Your task to perform on an android device: toggle improve location accuracy Image 0: 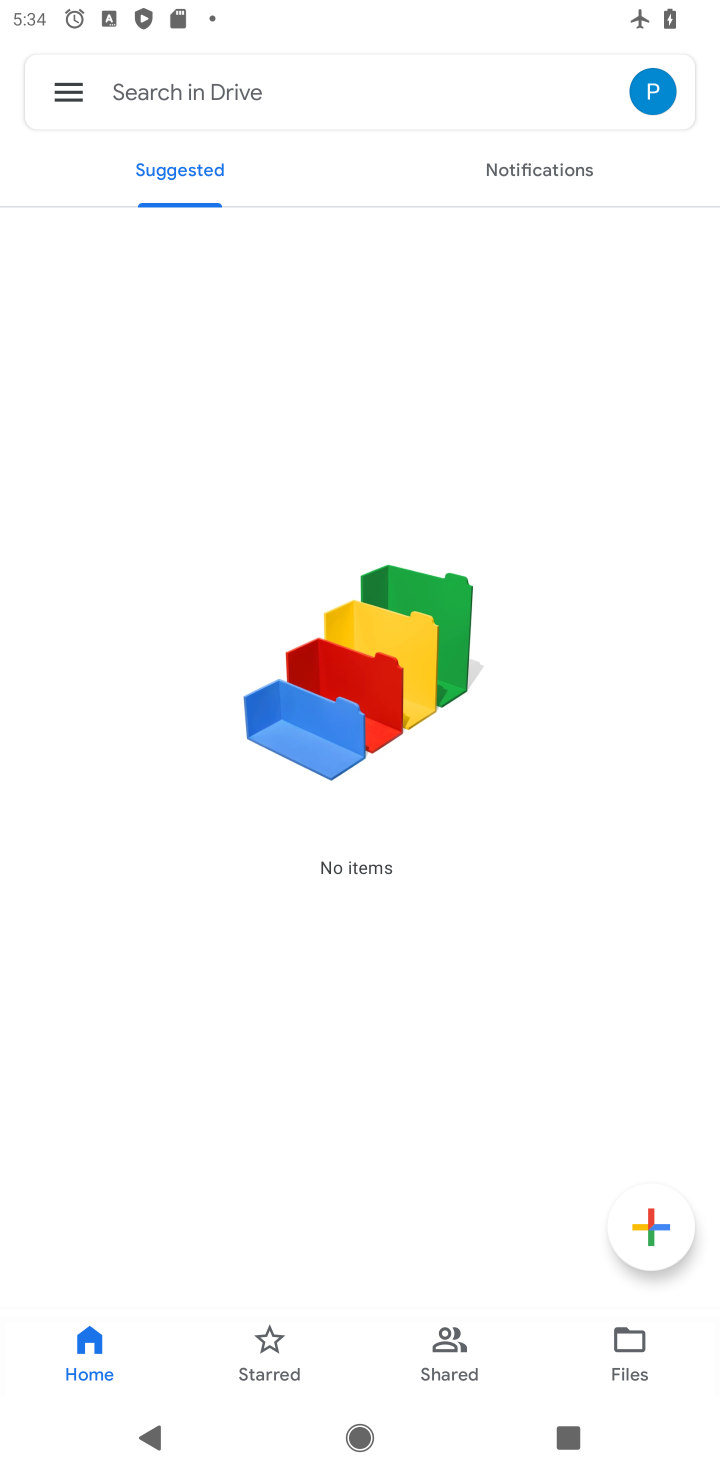
Step 0: press home button
Your task to perform on an android device: toggle improve location accuracy Image 1: 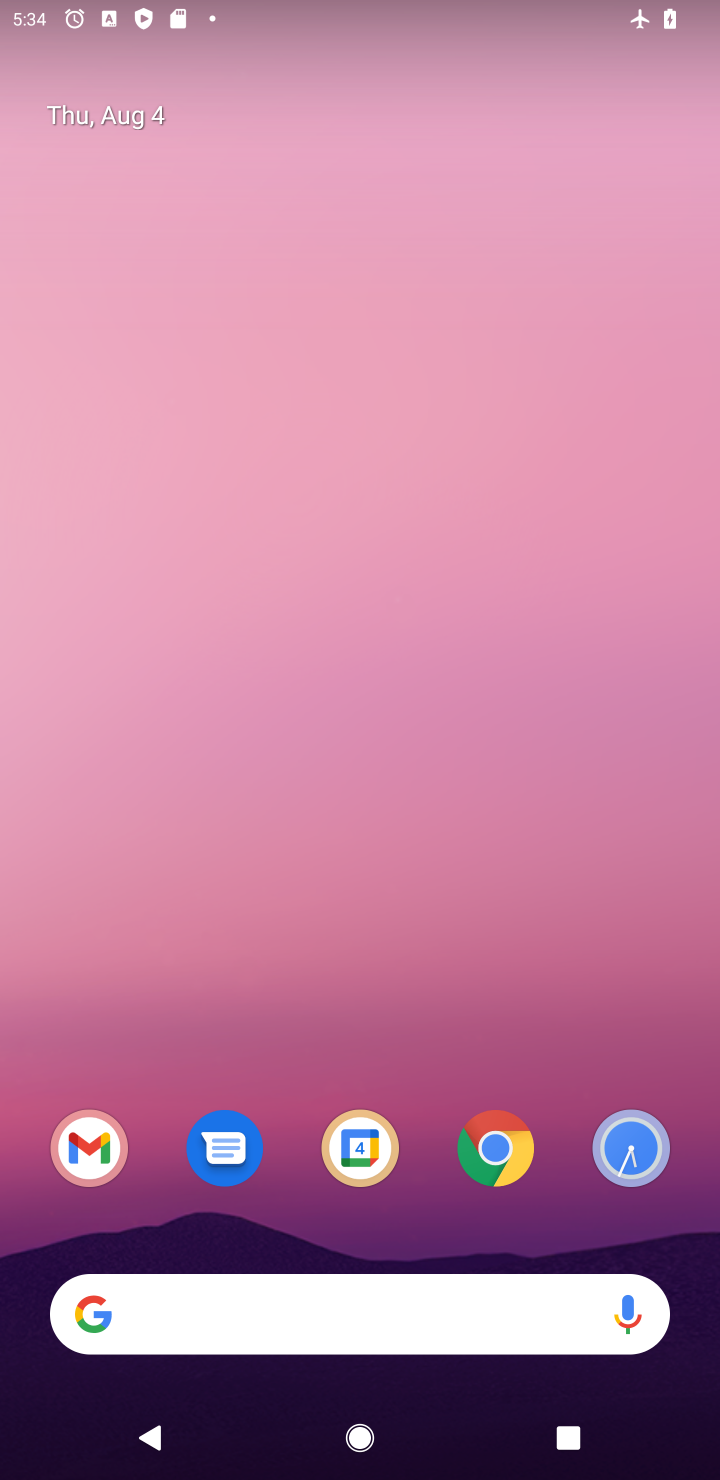
Step 1: drag from (550, 1187) to (489, 346)
Your task to perform on an android device: toggle improve location accuracy Image 2: 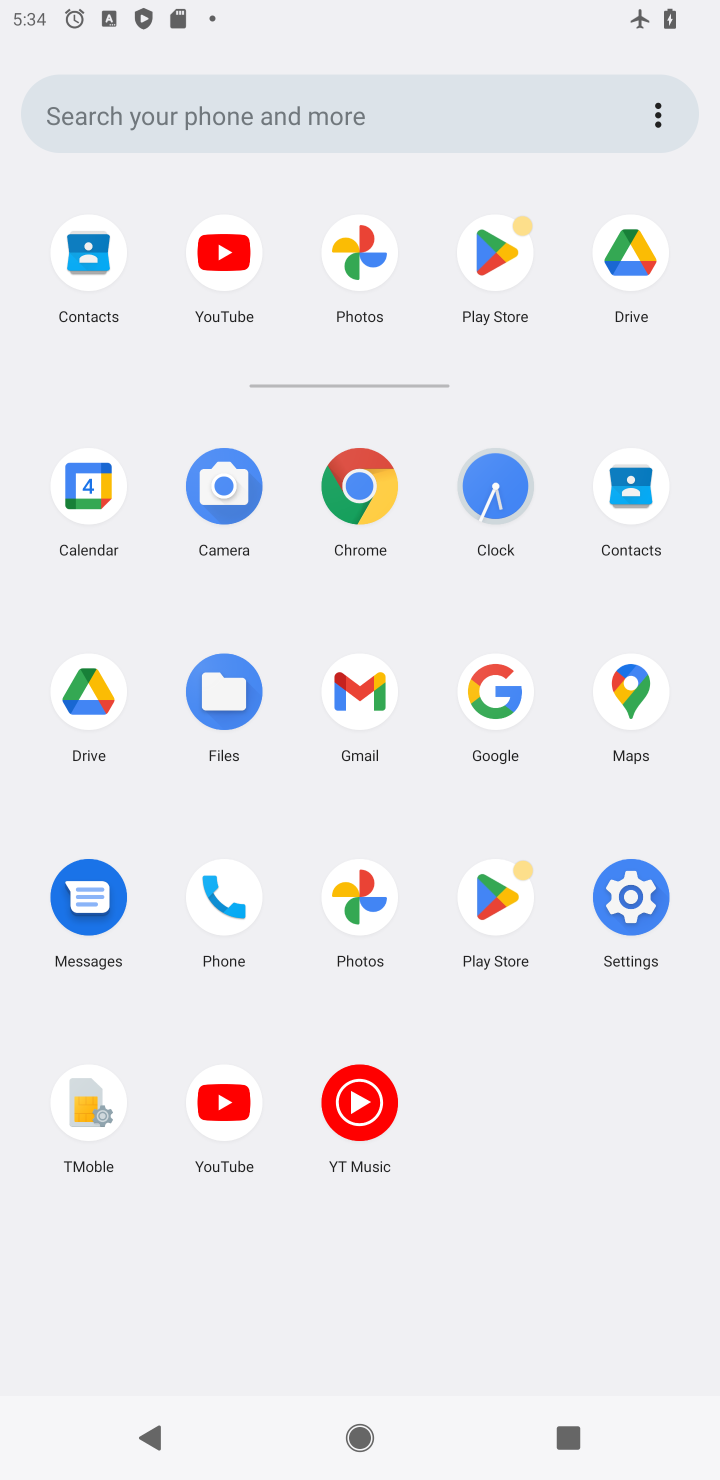
Step 2: click (627, 905)
Your task to perform on an android device: toggle improve location accuracy Image 3: 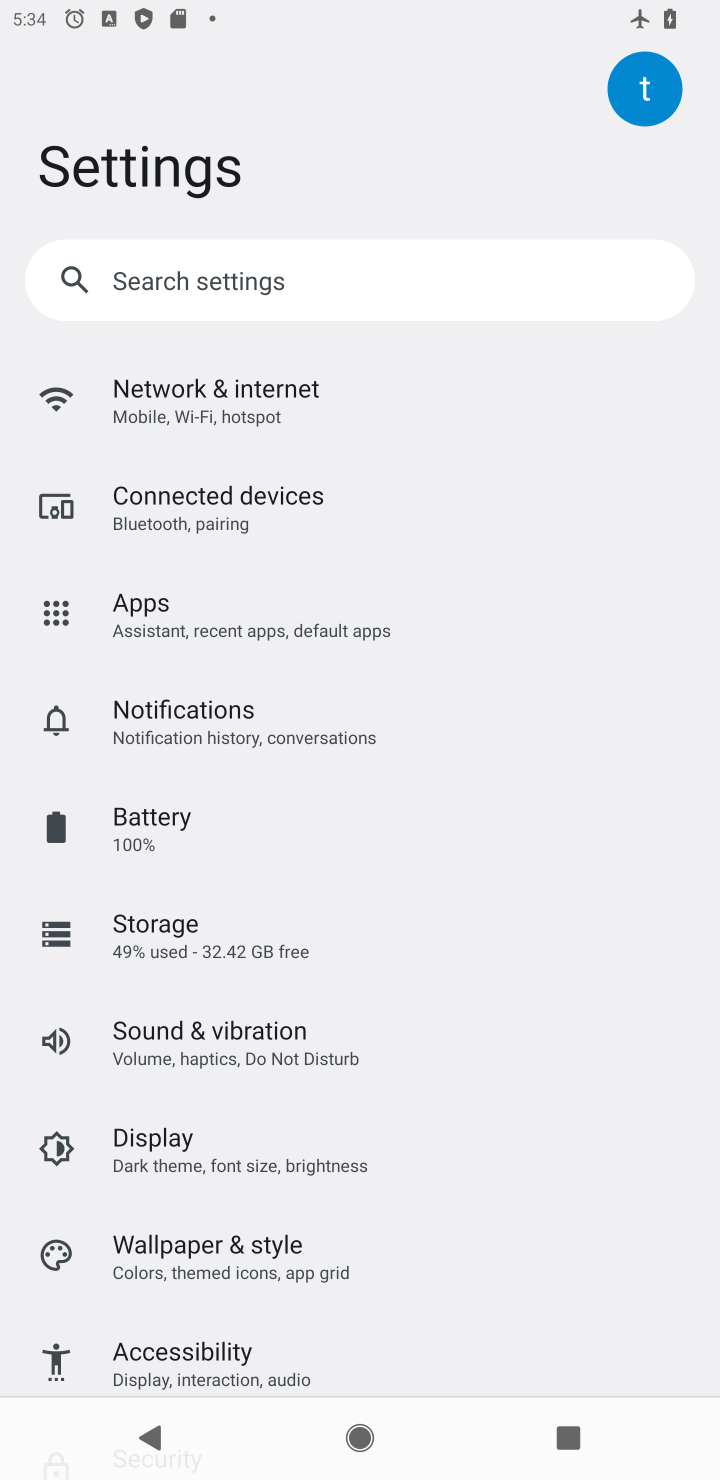
Step 3: drag from (444, 1297) to (456, 659)
Your task to perform on an android device: toggle improve location accuracy Image 4: 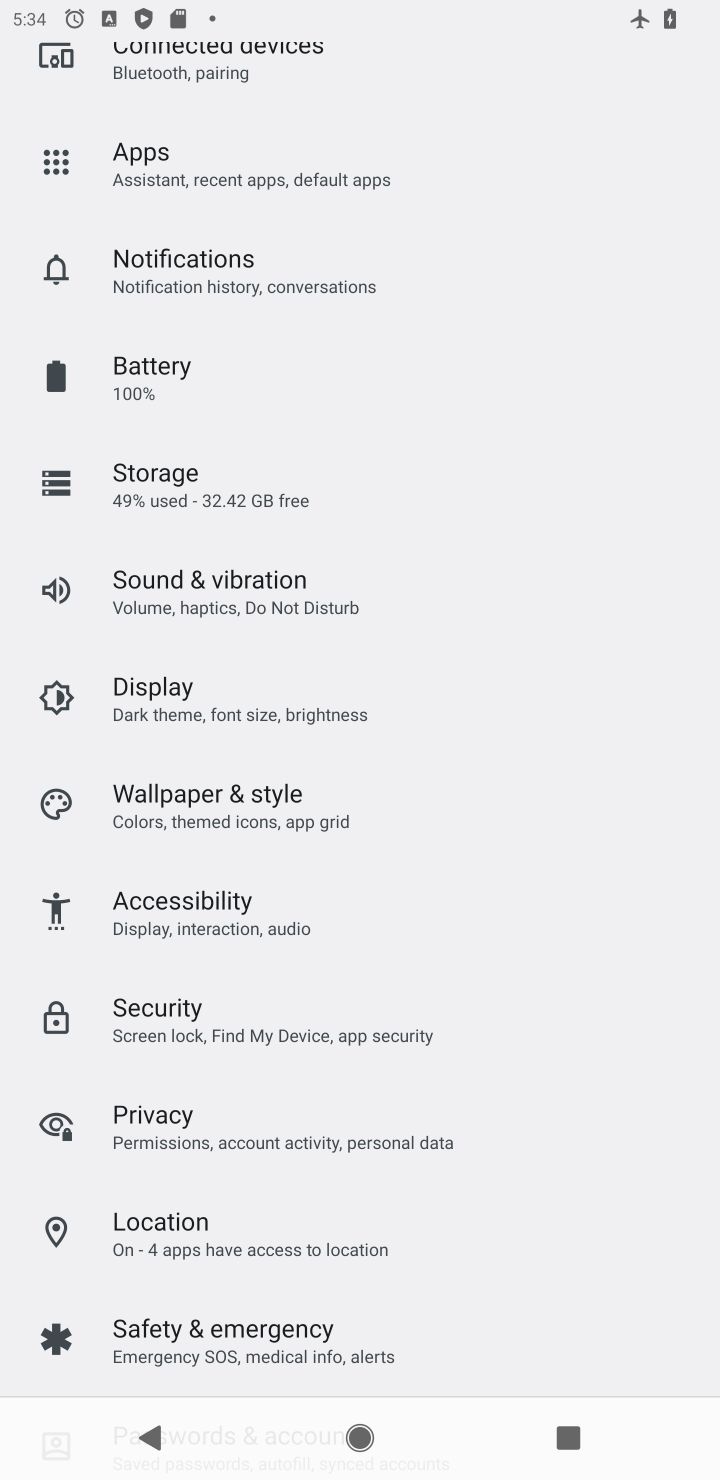
Step 4: click (157, 1234)
Your task to perform on an android device: toggle improve location accuracy Image 5: 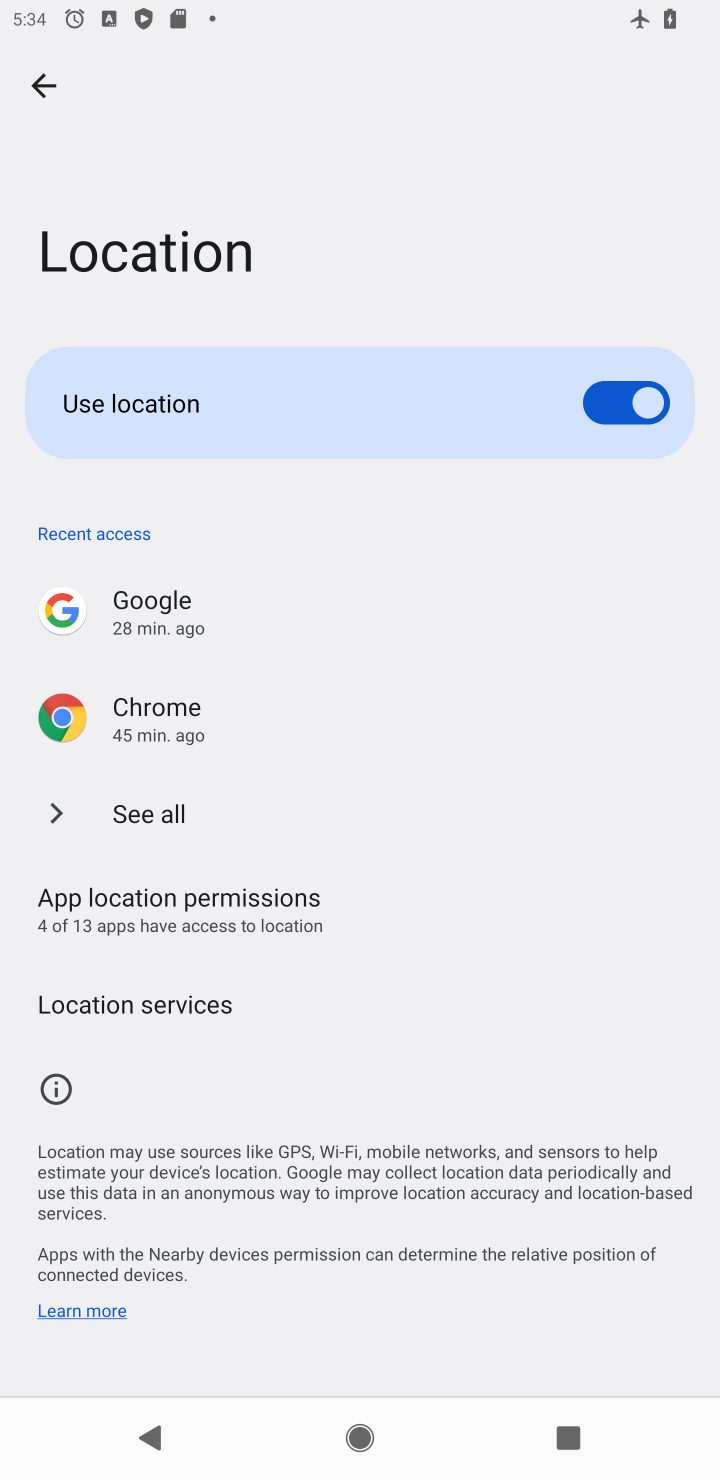
Step 5: click (93, 1013)
Your task to perform on an android device: toggle improve location accuracy Image 6: 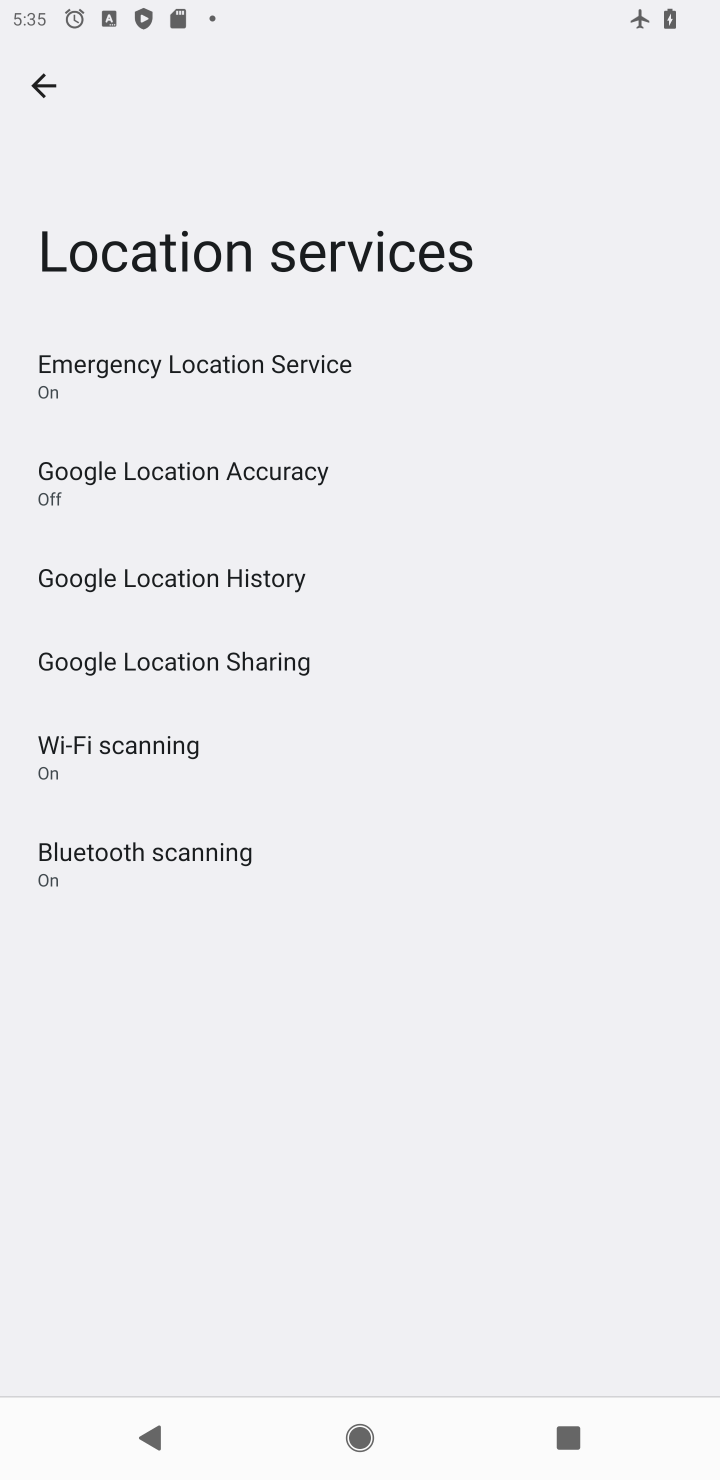
Step 6: click (190, 476)
Your task to perform on an android device: toggle improve location accuracy Image 7: 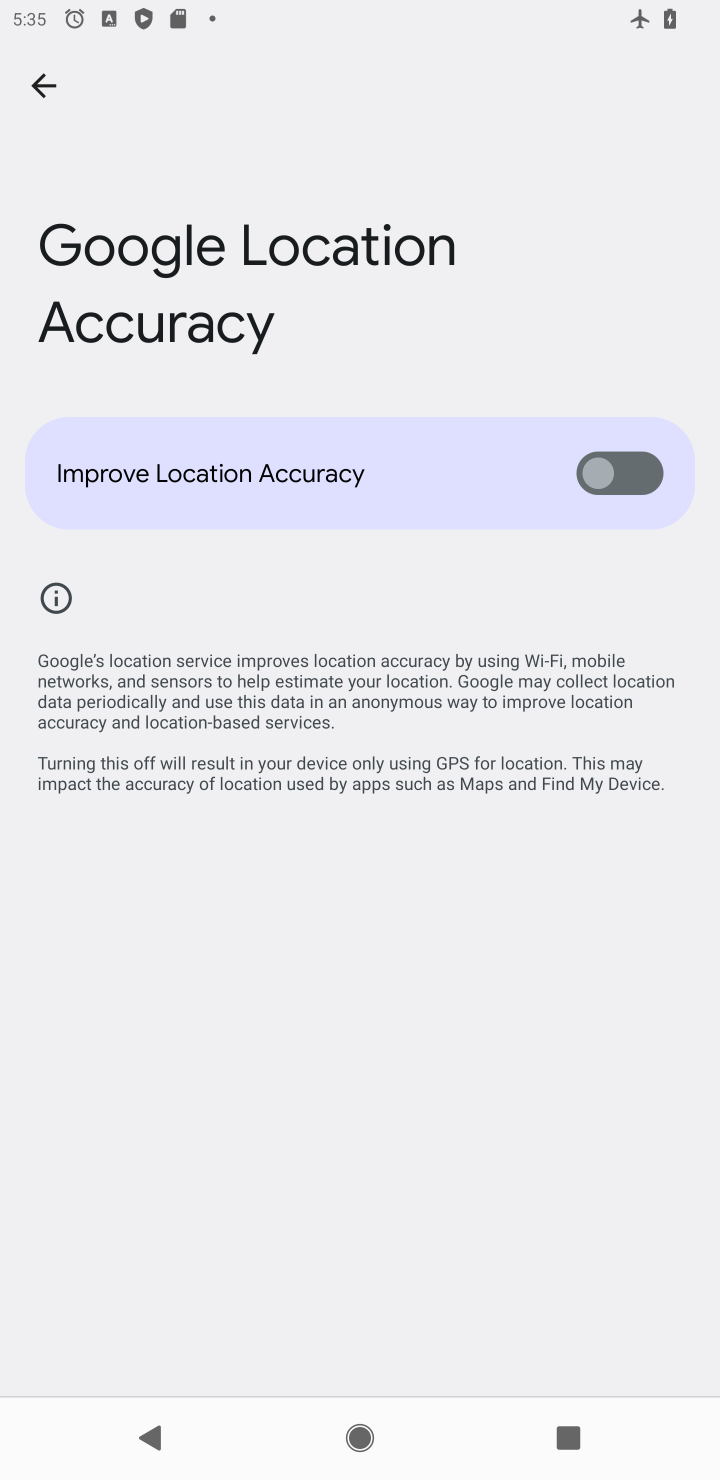
Step 7: click (646, 469)
Your task to perform on an android device: toggle improve location accuracy Image 8: 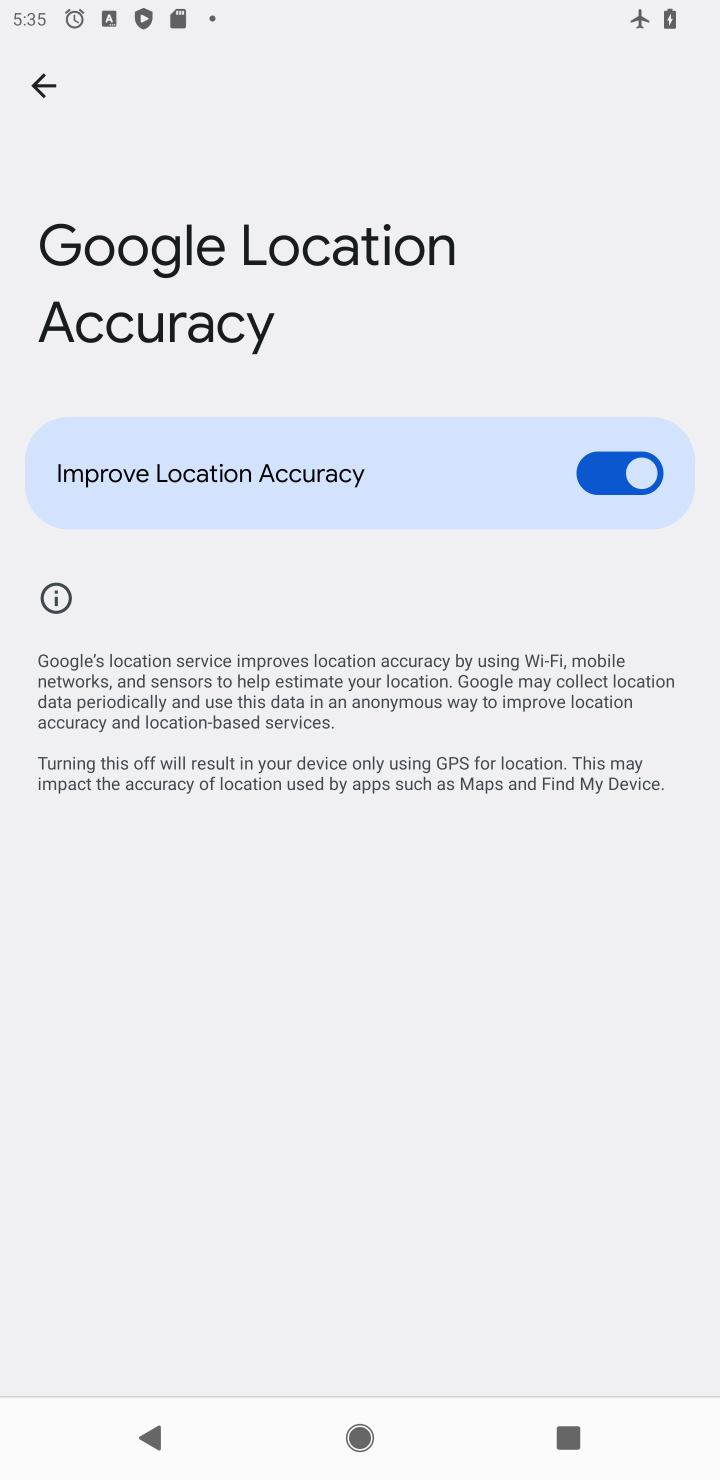
Step 8: task complete